Your task to perform on an android device: Go to Android settings Image 0: 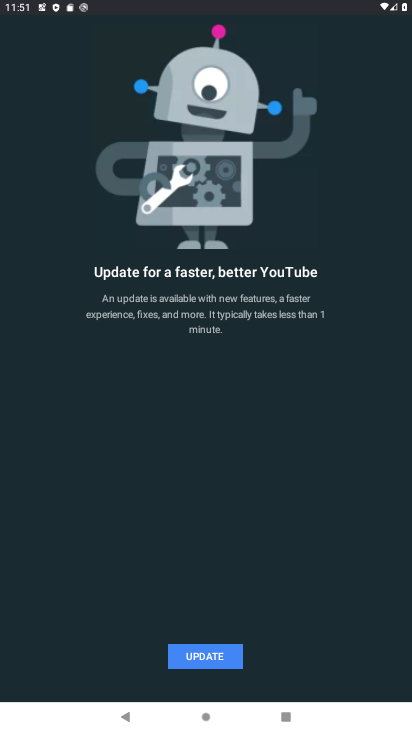
Step 0: press home button
Your task to perform on an android device: Go to Android settings Image 1: 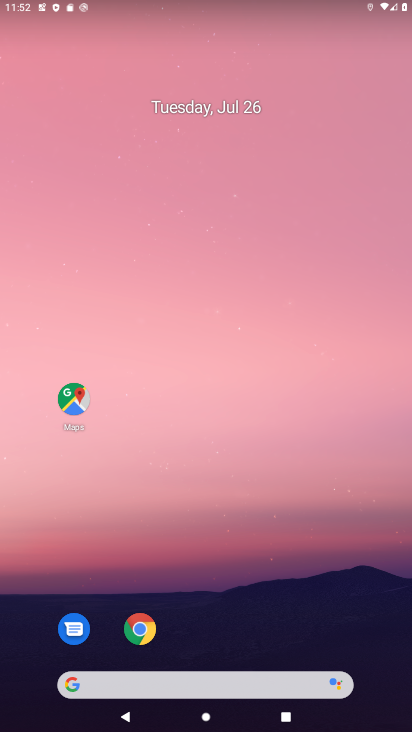
Step 1: drag from (234, 724) to (209, 212)
Your task to perform on an android device: Go to Android settings Image 2: 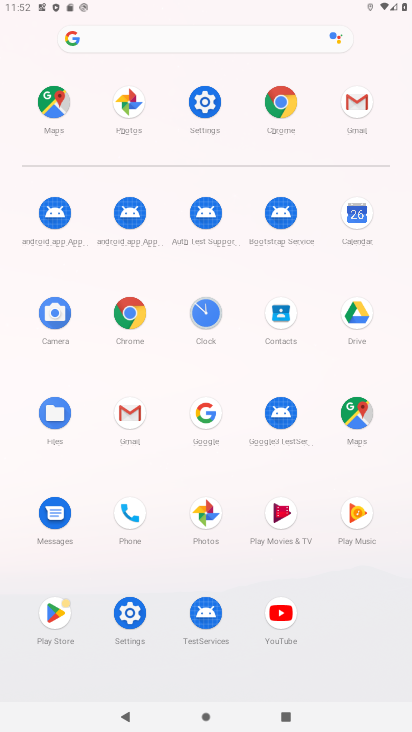
Step 2: click (202, 95)
Your task to perform on an android device: Go to Android settings Image 3: 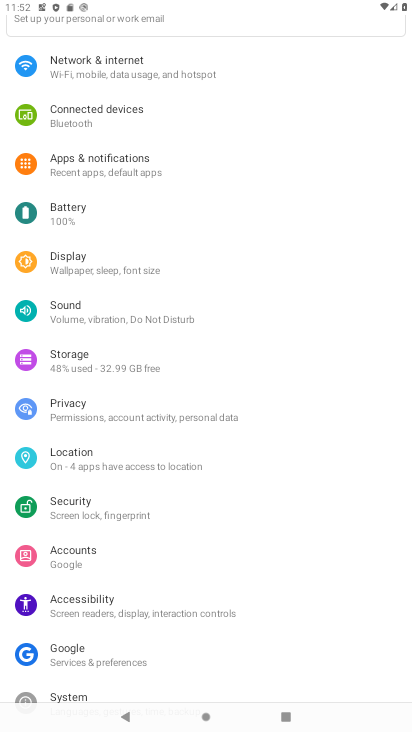
Step 3: task complete